Your task to perform on an android device: What's a good restaurant in Los Angeles? Image 0: 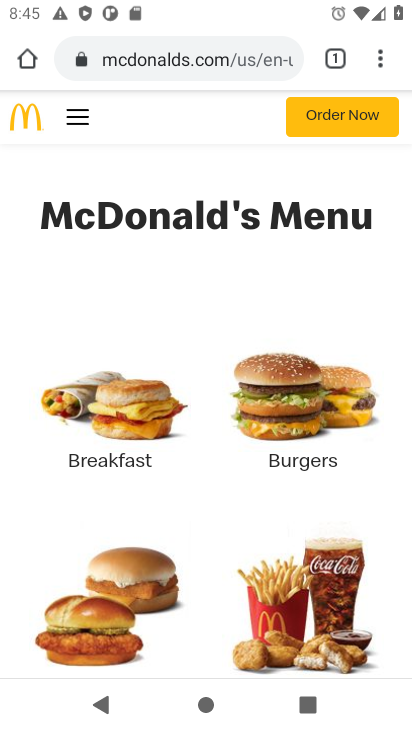
Step 0: press home button
Your task to perform on an android device: What's a good restaurant in Los Angeles? Image 1: 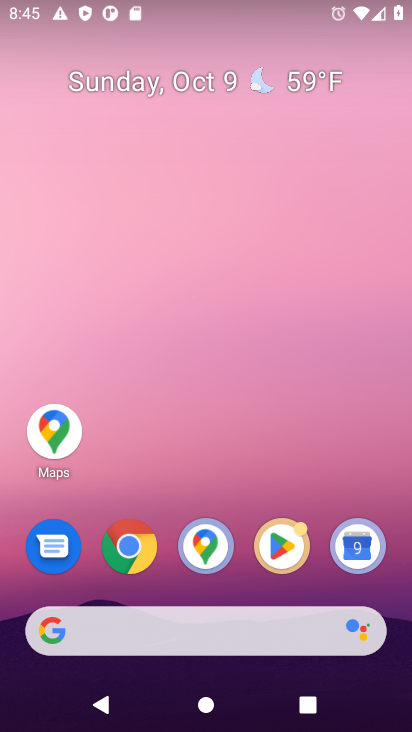
Step 1: click (140, 565)
Your task to perform on an android device: What's a good restaurant in Los Angeles? Image 2: 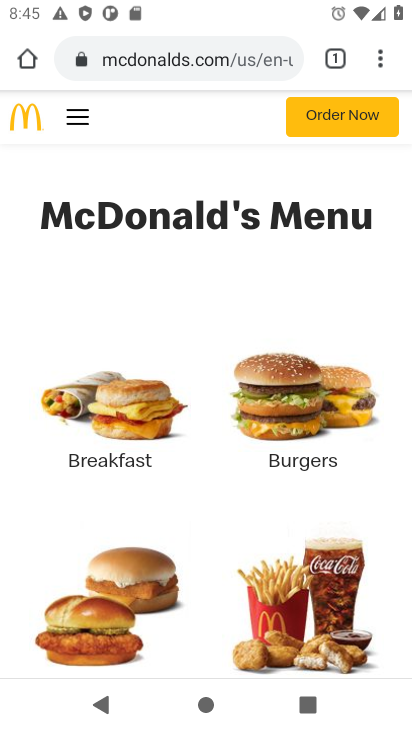
Step 2: click (166, 68)
Your task to perform on an android device: What's a good restaurant in Los Angeles? Image 3: 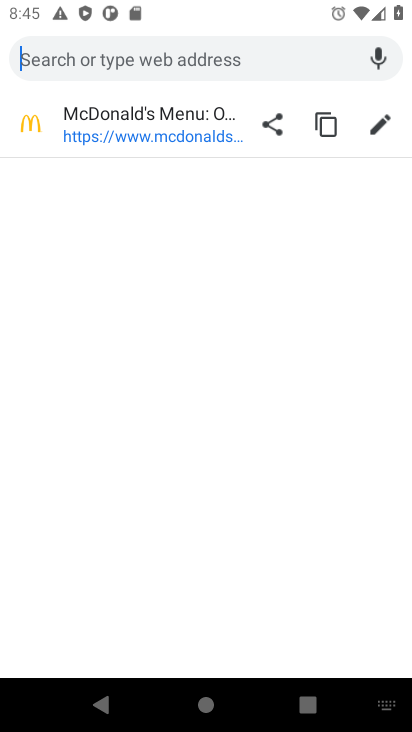
Step 3: type "good restaurants in log angeles"
Your task to perform on an android device: What's a good restaurant in Los Angeles? Image 4: 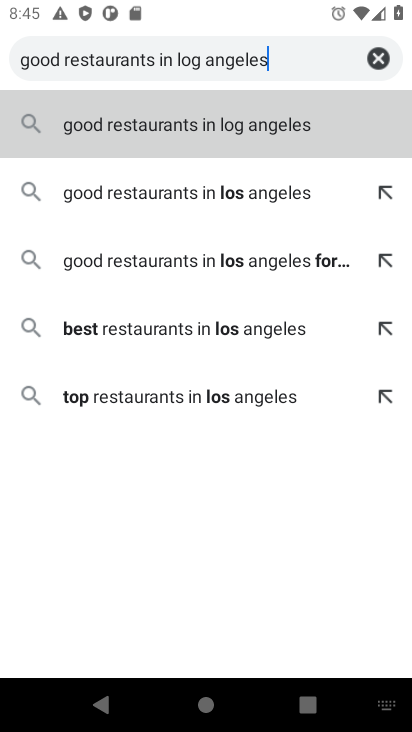
Step 4: type ""
Your task to perform on an android device: What's a good restaurant in Los Angeles? Image 5: 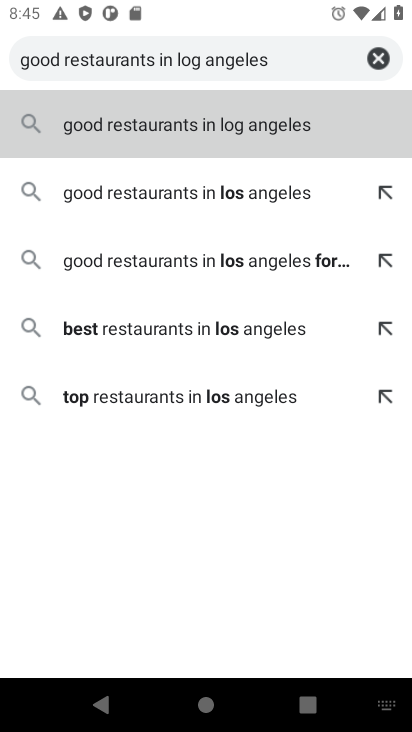
Step 5: press enter
Your task to perform on an android device: What's a good restaurant in Los Angeles? Image 6: 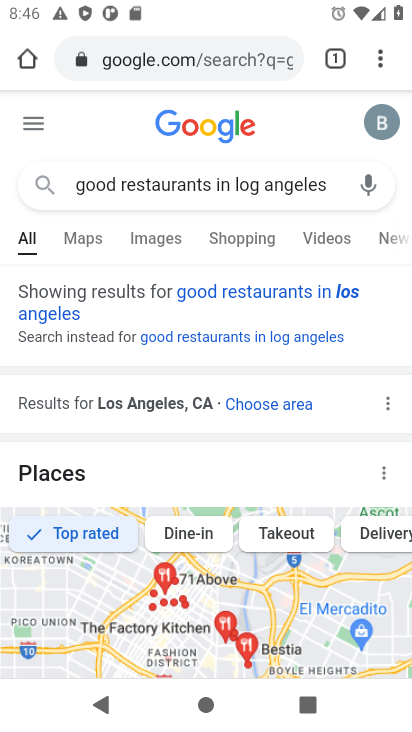
Step 6: drag from (297, 544) to (277, 262)
Your task to perform on an android device: What's a good restaurant in Los Angeles? Image 7: 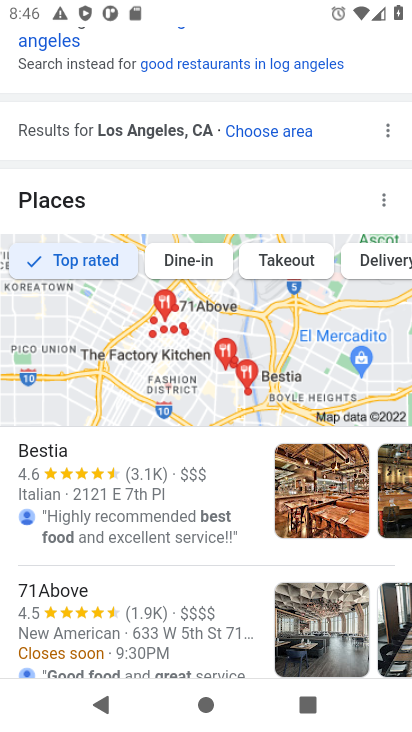
Step 7: drag from (174, 475) to (164, 266)
Your task to perform on an android device: What's a good restaurant in Los Angeles? Image 8: 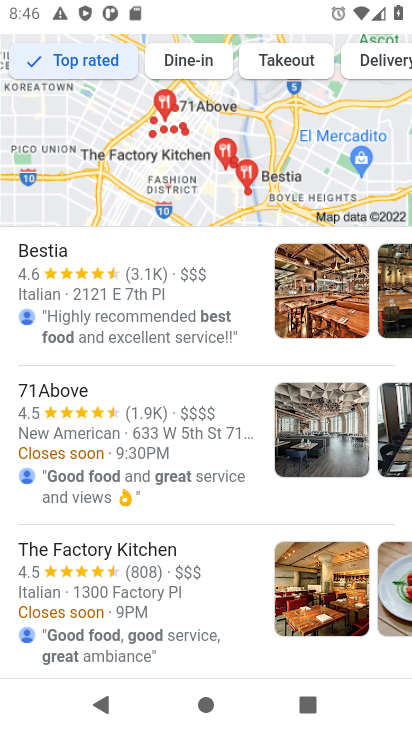
Step 8: drag from (145, 548) to (164, 333)
Your task to perform on an android device: What's a good restaurant in Los Angeles? Image 9: 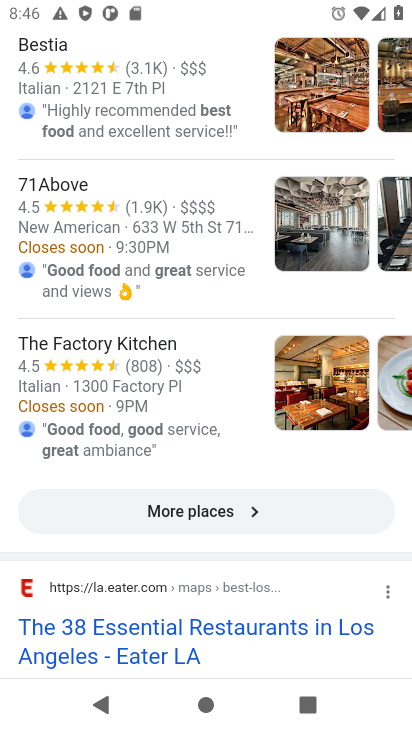
Step 9: click (215, 521)
Your task to perform on an android device: What's a good restaurant in Los Angeles? Image 10: 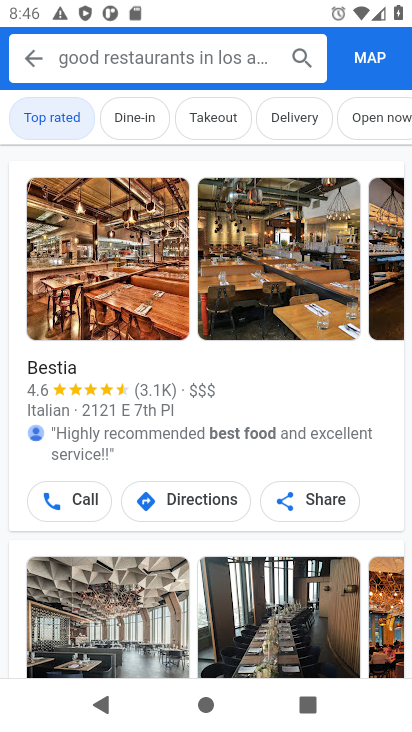
Step 10: task complete